Your task to perform on an android device: Search for "razer blade" on newegg, select the first entry, add it to the cart, then select checkout. Image 0: 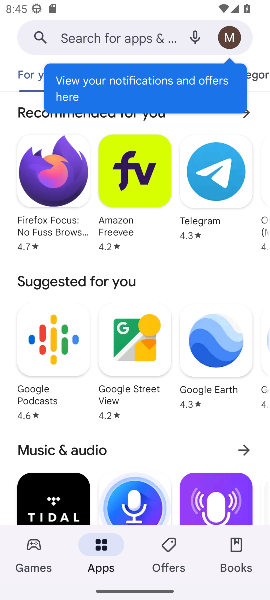
Step 0: press home button
Your task to perform on an android device: Search for "razer blade" on newegg, select the first entry, add it to the cart, then select checkout. Image 1: 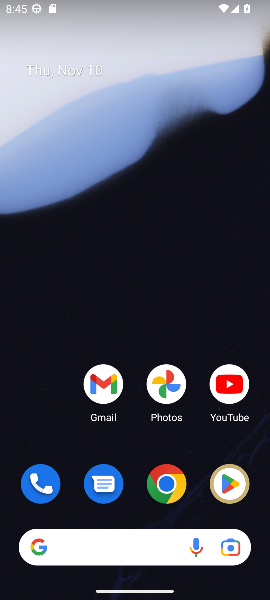
Step 1: click (163, 484)
Your task to perform on an android device: Search for "razer blade" on newegg, select the first entry, add it to the cart, then select checkout. Image 2: 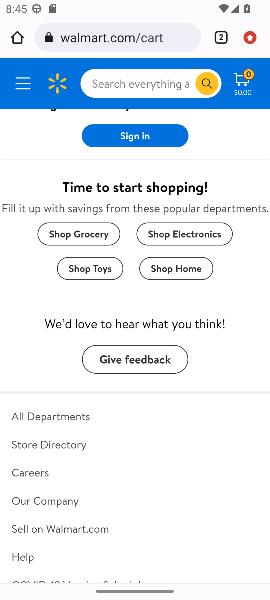
Step 2: click (115, 44)
Your task to perform on an android device: Search for "razer blade" on newegg, select the first entry, add it to the cart, then select checkout. Image 3: 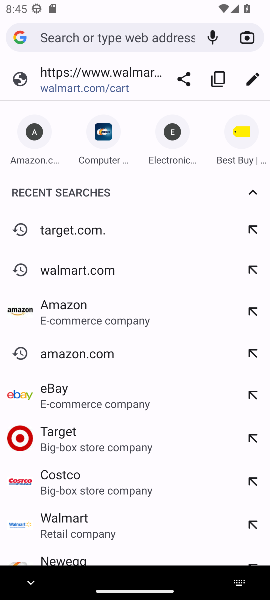
Step 3: type "newegg.com"
Your task to perform on an android device: Search for "razer blade" on newegg, select the first entry, add it to the cart, then select checkout. Image 4: 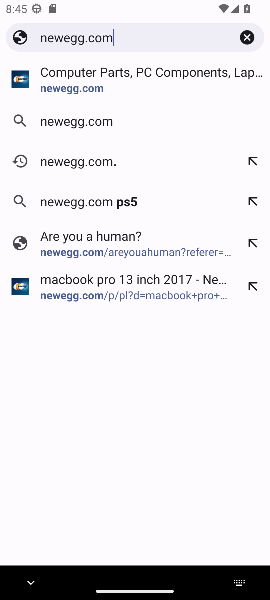
Step 4: click (68, 85)
Your task to perform on an android device: Search for "razer blade" on newegg, select the first entry, add it to the cart, then select checkout. Image 5: 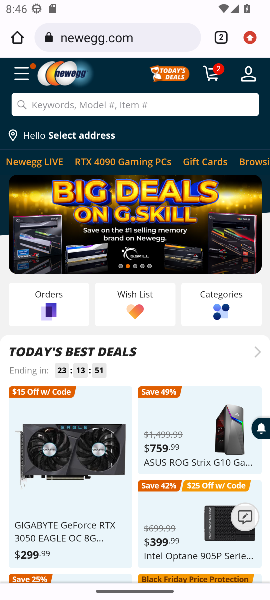
Step 5: click (103, 98)
Your task to perform on an android device: Search for "razer blade" on newegg, select the first entry, add it to the cart, then select checkout. Image 6: 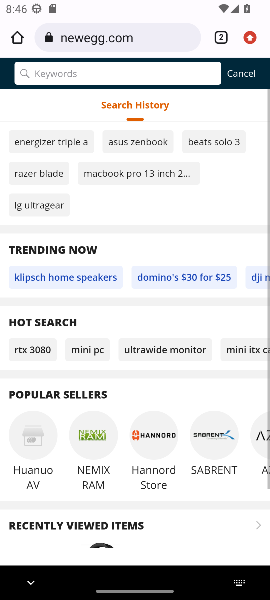
Step 6: type "razer blade"
Your task to perform on an android device: Search for "razer blade" on newegg, select the first entry, add it to the cart, then select checkout. Image 7: 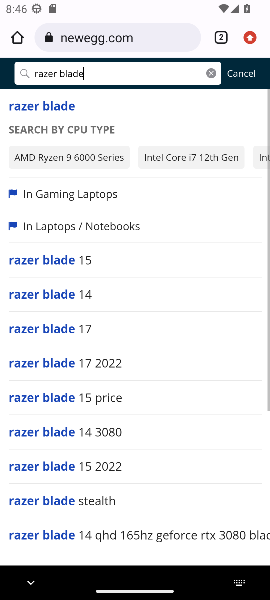
Step 7: click (42, 107)
Your task to perform on an android device: Search for "razer blade" on newegg, select the first entry, add it to the cart, then select checkout. Image 8: 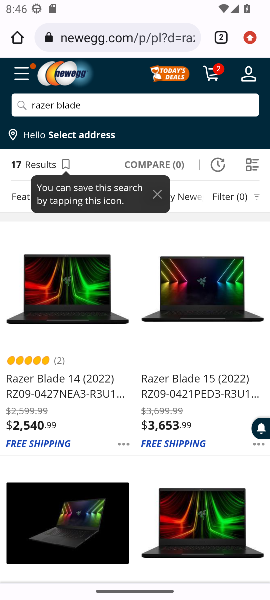
Step 8: click (48, 377)
Your task to perform on an android device: Search for "razer blade" on newegg, select the first entry, add it to the cart, then select checkout. Image 9: 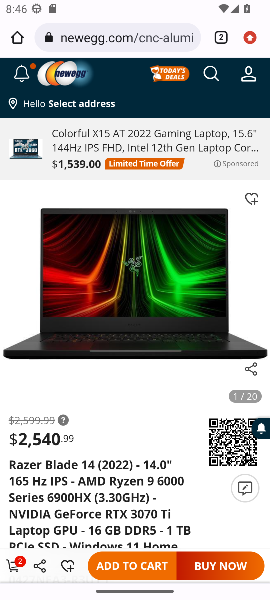
Step 9: click (133, 572)
Your task to perform on an android device: Search for "razer blade" on newegg, select the first entry, add it to the cart, then select checkout. Image 10: 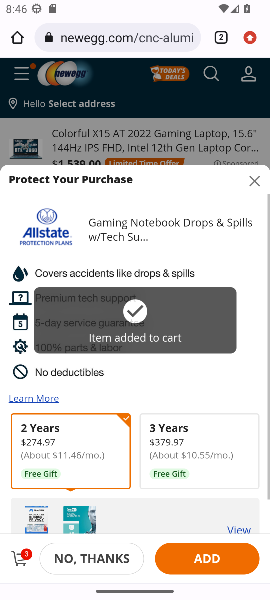
Step 10: click (20, 564)
Your task to perform on an android device: Search for "razer blade" on newegg, select the first entry, add it to the cart, then select checkout. Image 11: 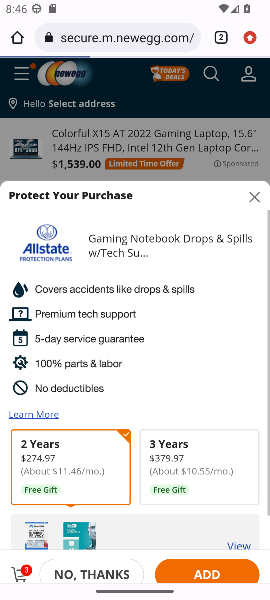
Step 11: click (26, 558)
Your task to perform on an android device: Search for "razer blade" on newegg, select the first entry, add it to the cart, then select checkout. Image 12: 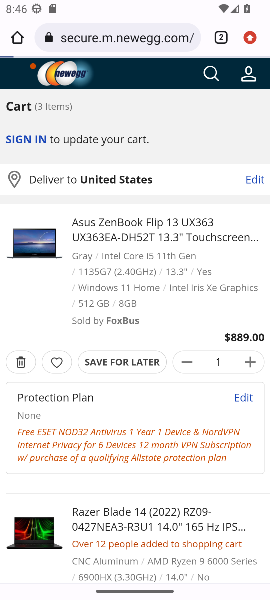
Step 12: click (135, 539)
Your task to perform on an android device: Search for "razer blade" on newegg, select the first entry, add it to the cart, then select checkout. Image 13: 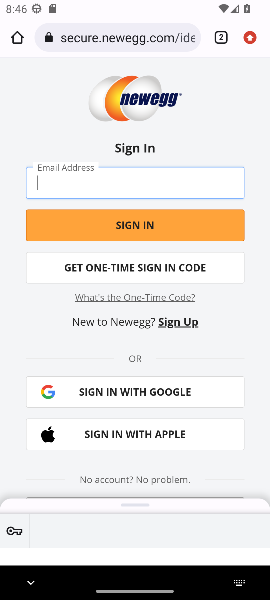
Step 13: task complete